Your task to perform on an android device: Go to internet settings Image 0: 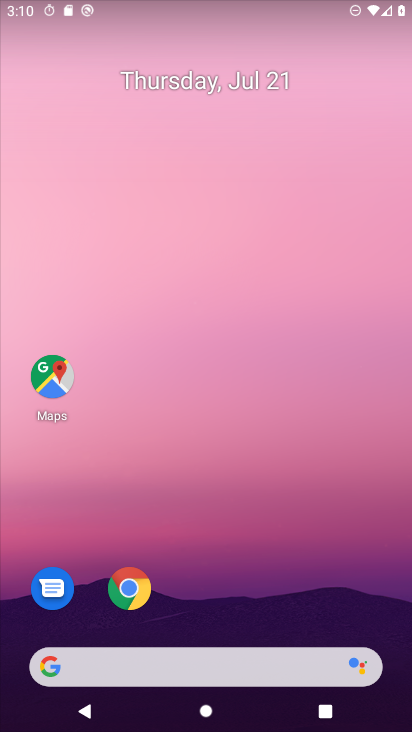
Step 0: drag from (292, 602) to (319, 111)
Your task to perform on an android device: Go to internet settings Image 1: 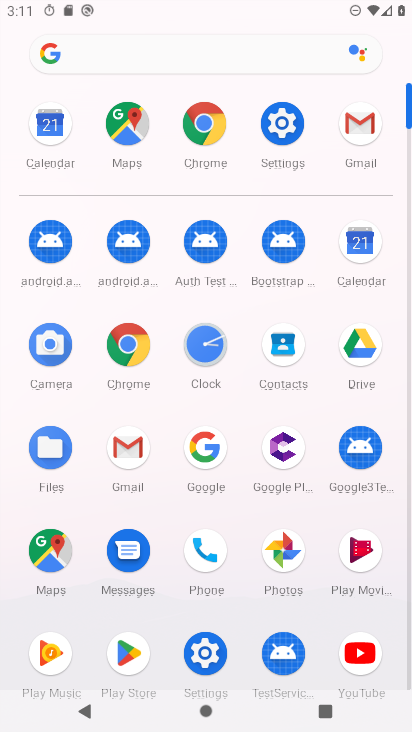
Step 1: click (299, 136)
Your task to perform on an android device: Go to internet settings Image 2: 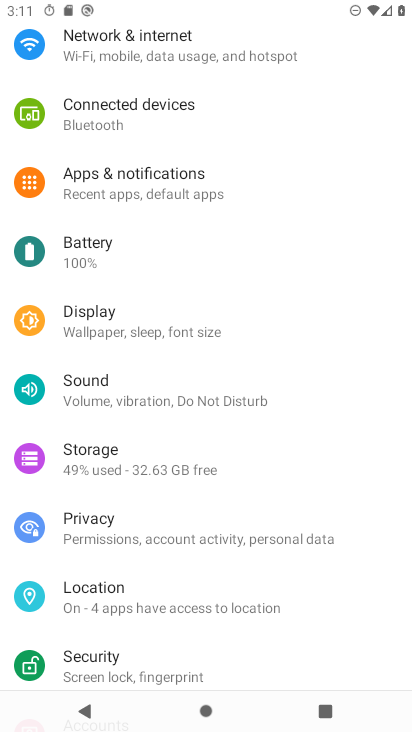
Step 2: drag from (162, 342) to (140, 635)
Your task to perform on an android device: Go to internet settings Image 3: 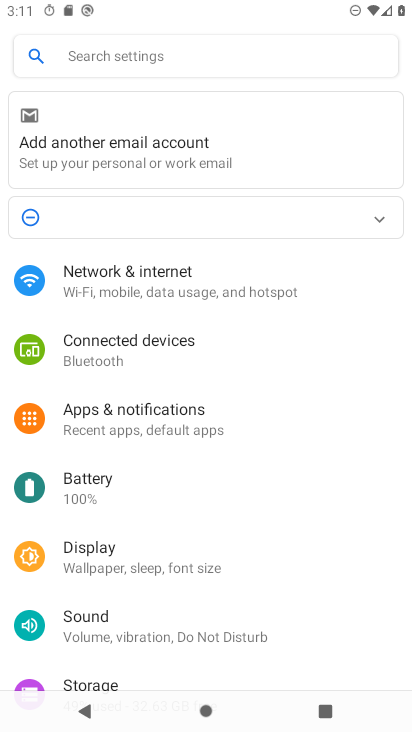
Step 3: click (149, 292)
Your task to perform on an android device: Go to internet settings Image 4: 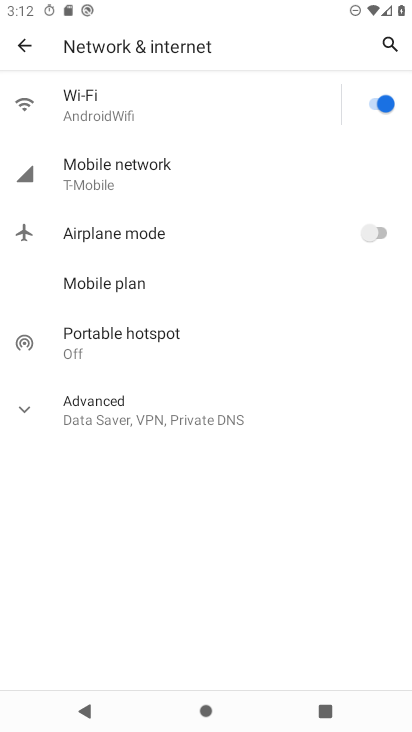
Step 4: click (149, 172)
Your task to perform on an android device: Go to internet settings Image 5: 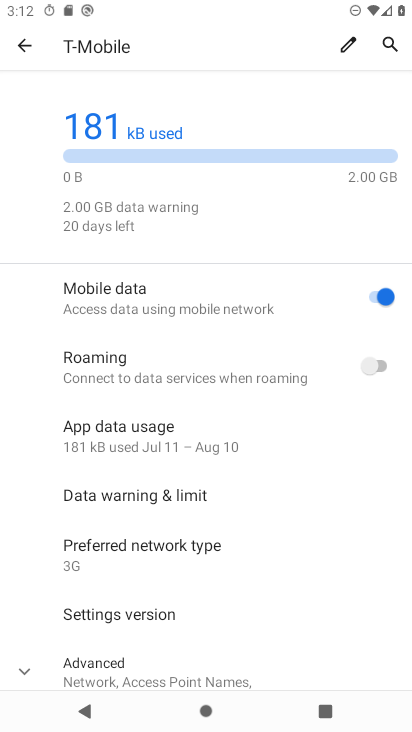
Step 5: task complete